Your task to perform on an android device: allow cookies in the chrome app Image 0: 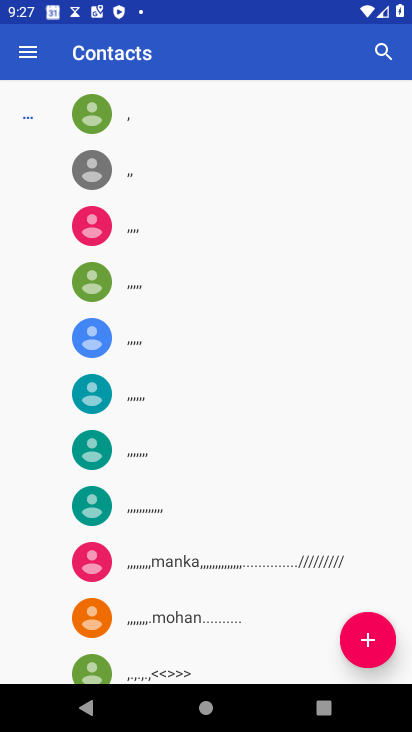
Step 0: press home button
Your task to perform on an android device: allow cookies in the chrome app Image 1: 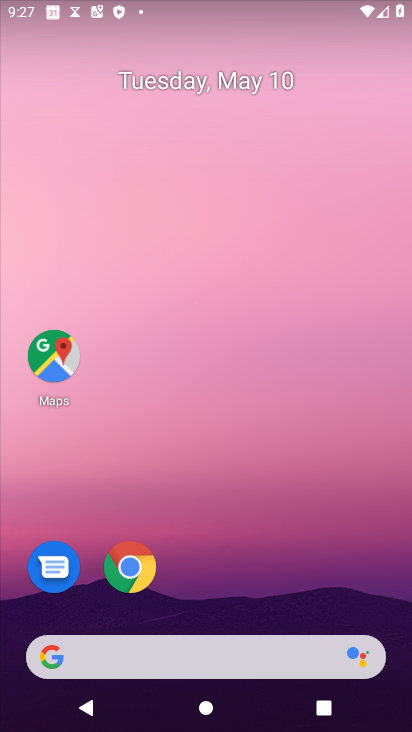
Step 1: click (131, 560)
Your task to perform on an android device: allow cookies in the chrome app Image 2: 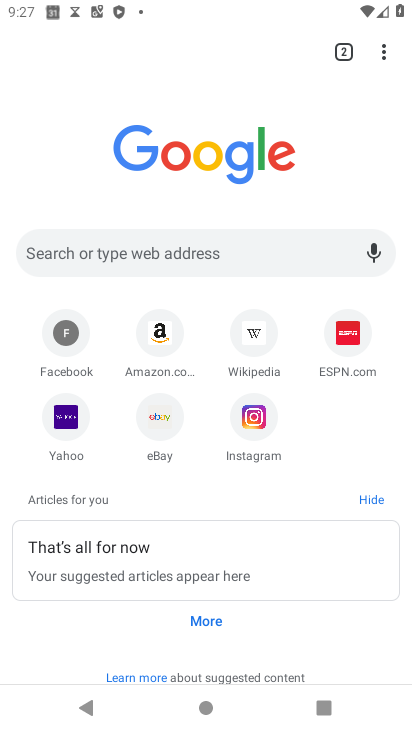
Step 2: click (375, 49)
Your task to perform on an android device: allow cookies in the chrome app Image 3: 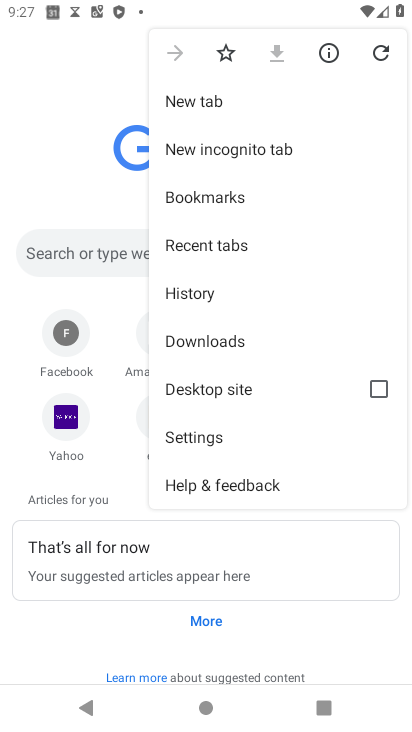
Step 3: click (212, 437)
Your task to perform on an android device: allow cookies in the chrome app Image 4: 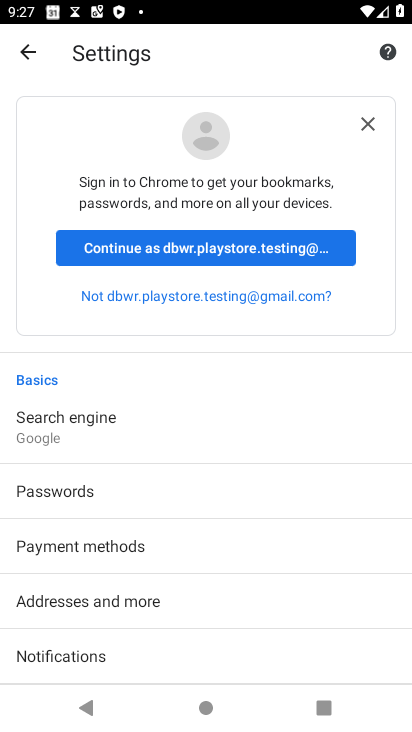
Step 4: drag from (14, 632) to (194, 204)
Your task to perform on an android device: allow cookies in the chrome app Image 5: 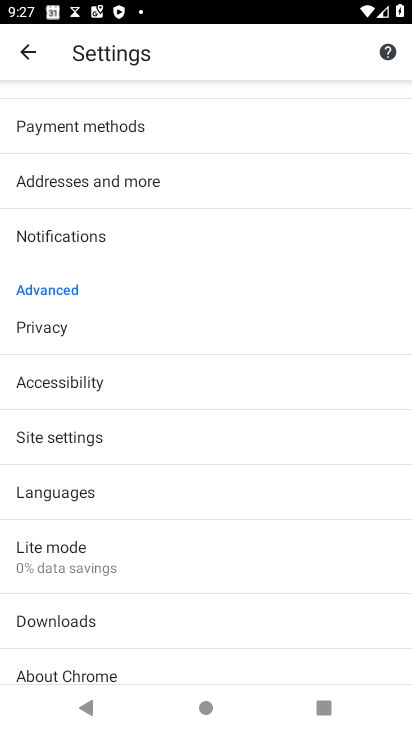
Step 5: click (42, 433)
Your task to perform on an android device: allow cookies in the chrome app Image 6: 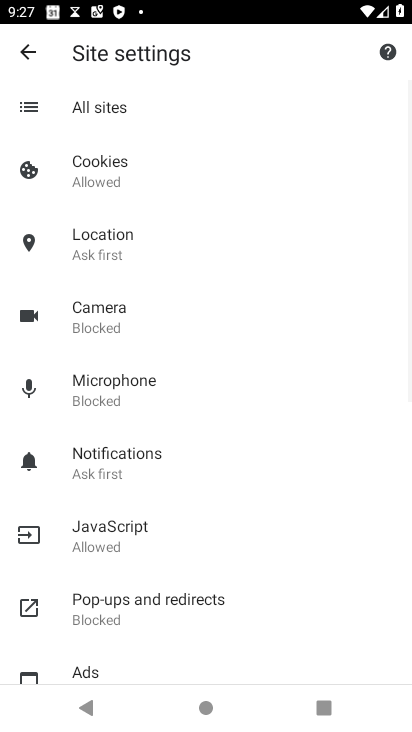
Step 6: click (98, 168)
Your task to perform on an android device: allow cookies in the chrome app Image 7: 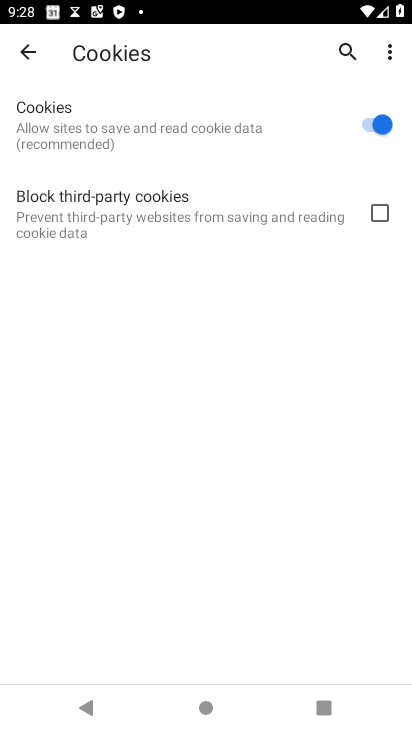
Step 7: task complete